Your task to perform on an android device: What is the recent news? Image 0: 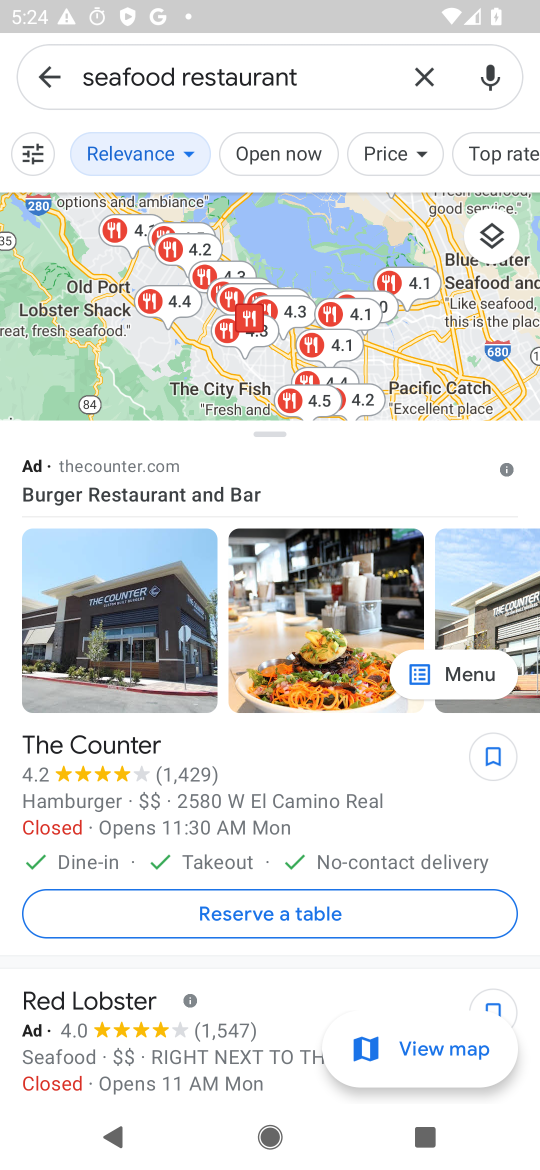
Step 0: press home button
Your task to perform on an android device: What is the recent news? Image 1: 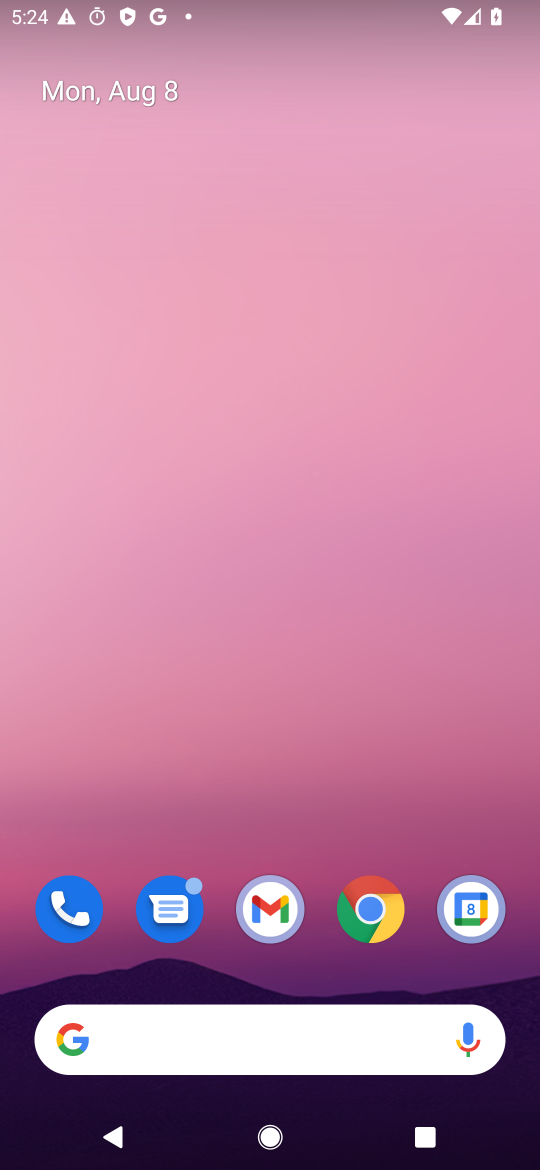
Step 1: click (200, 1050)
Your task to perform on an android device: What is the recent news? Image 2: 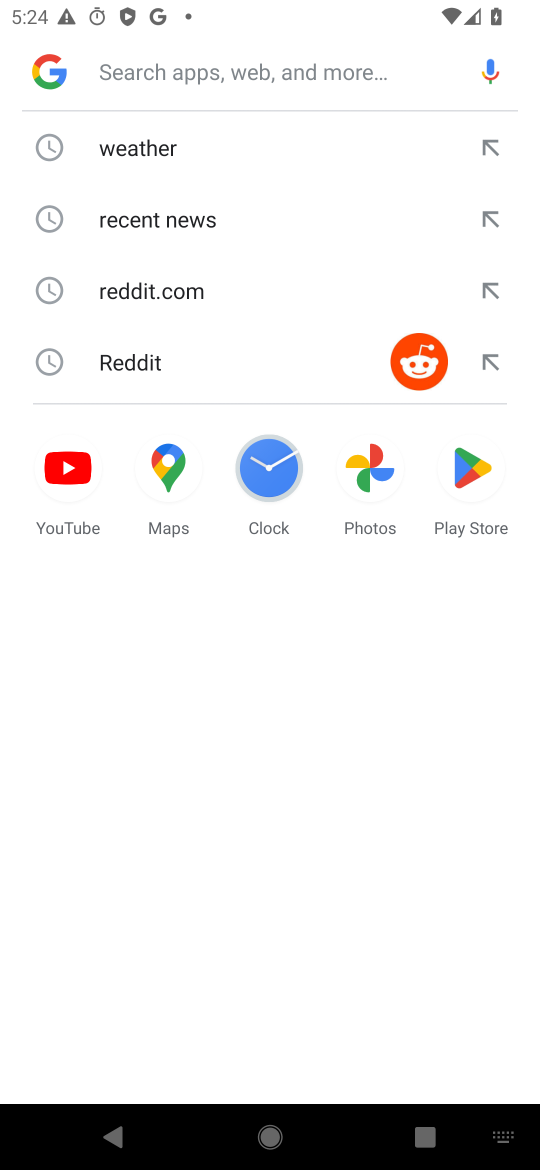
Step 2: click (179, 206)
Your task to perform on an android device: What is the recent news? Image 3: 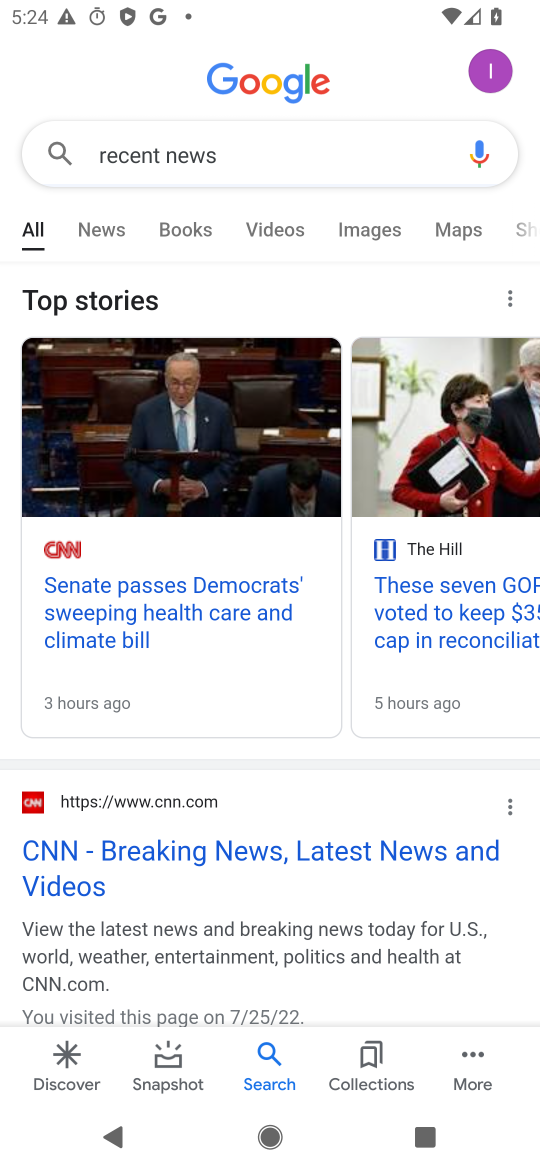
Step 3: click (88, 235)
Your task to perform on an android device: What is the recent news? Image 4: 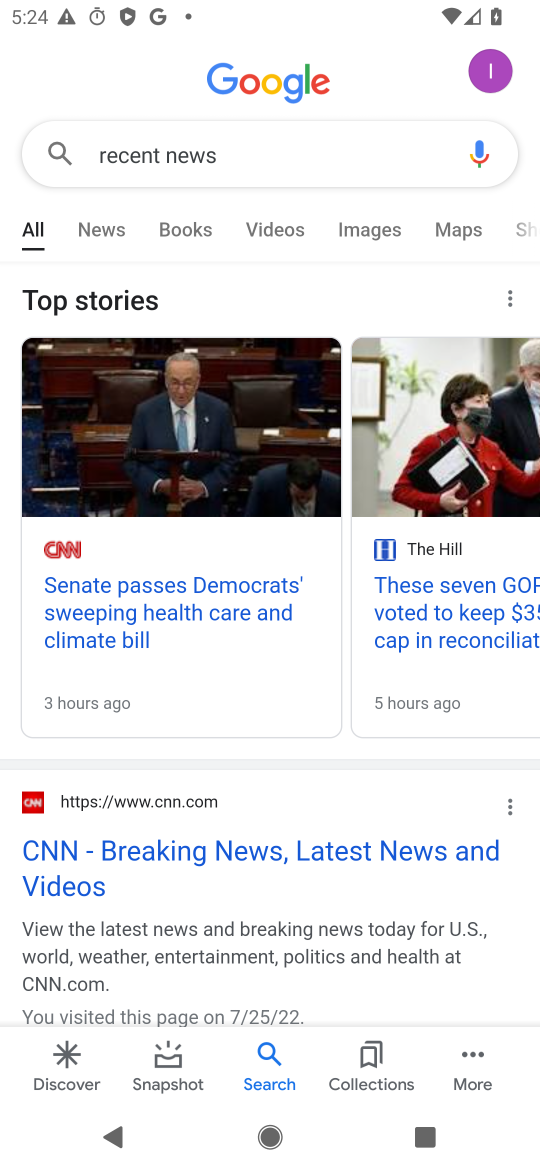
Step 4: click (98, 231)
Your task to perform on an android device: What is the recent news? Image 5: 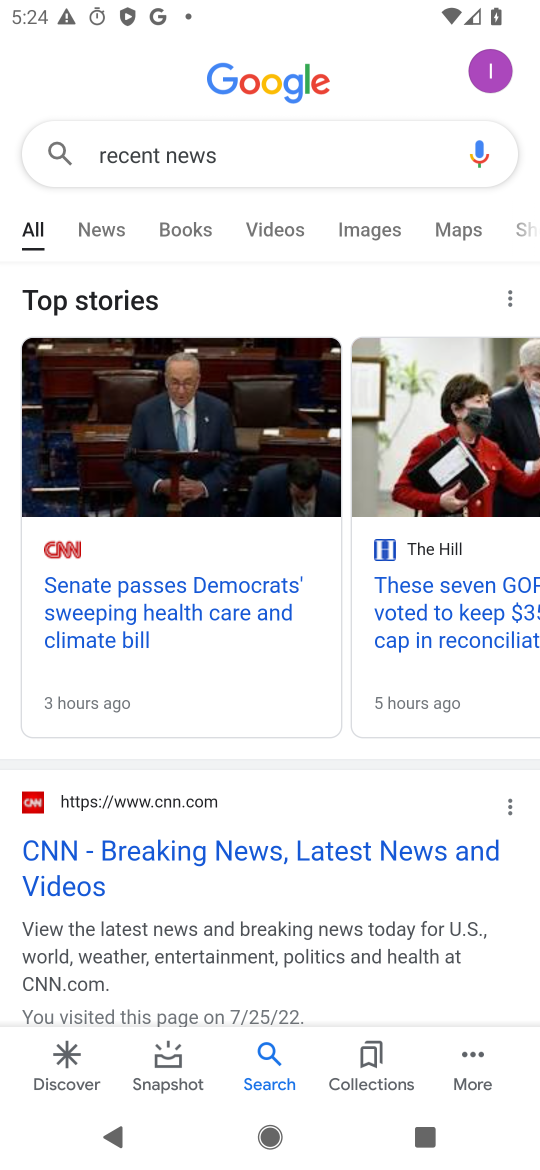
Step 5: click (113, 229)
Your task to perform on an android device: What is the recent news? Image 6: 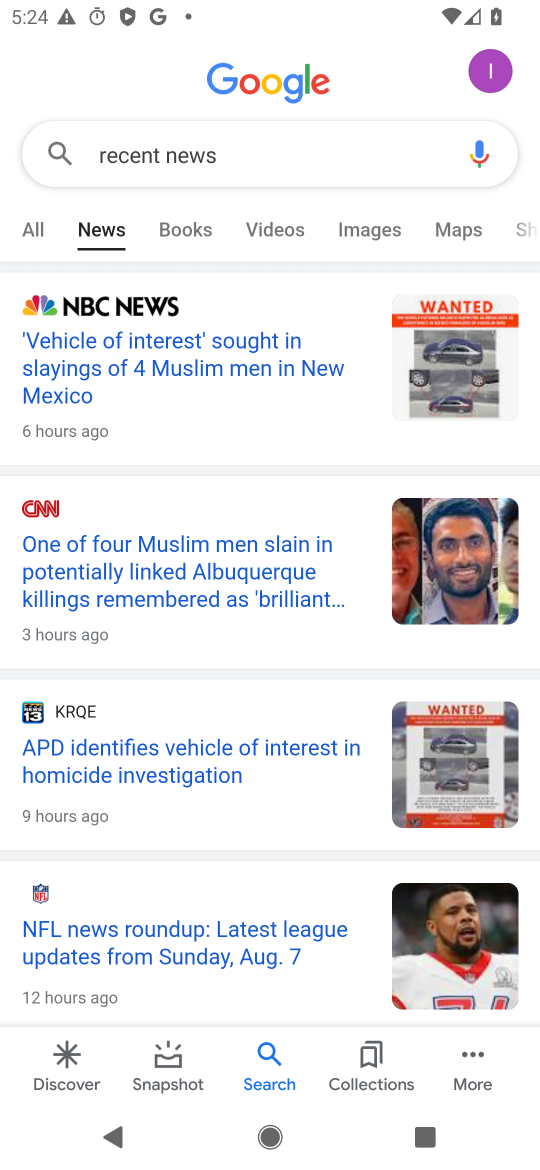
Step 6: task complete